Your task to perform on an android device: turn off picture-in-picture Image 0: 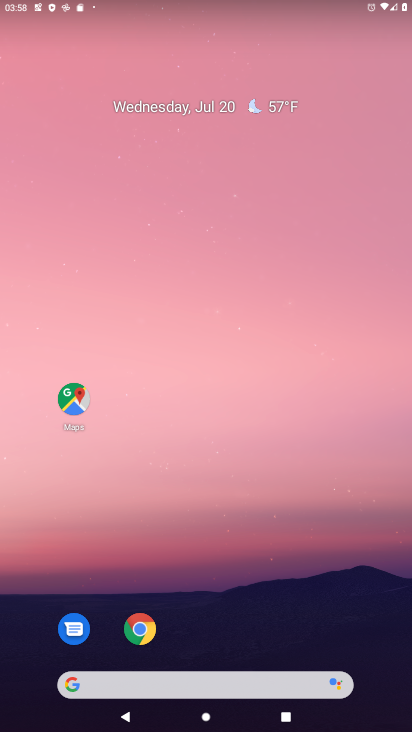
Step 0: drag from (394, 671) to (325, 89)
Your task to perform on an android device: turn off picture-in-picture Image 1: 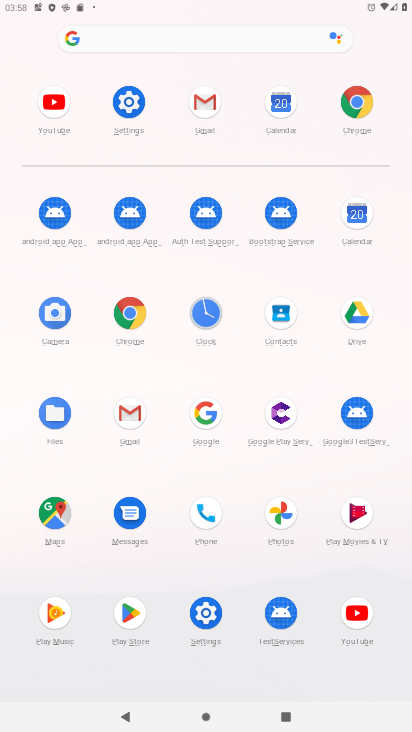
Step 1: click (206, 612)
Your task to perform on an android device: turn off picture-in-picture Image 2: 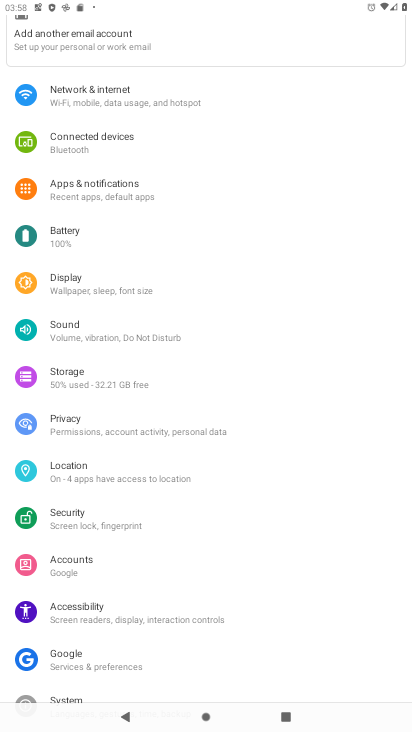
Step 2: click (96, 191)
Your task to perform on an android device: turn off picture-in-picture Image 3: 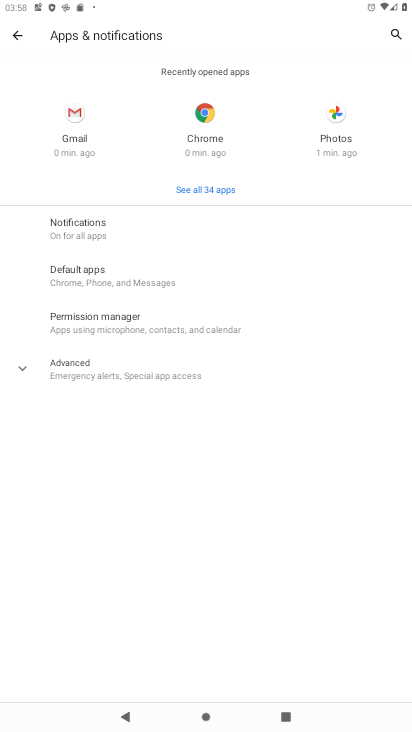
Step 3: click (19, 362)
Your task to perform on an android device: turn off picture-in-picture Image 4: 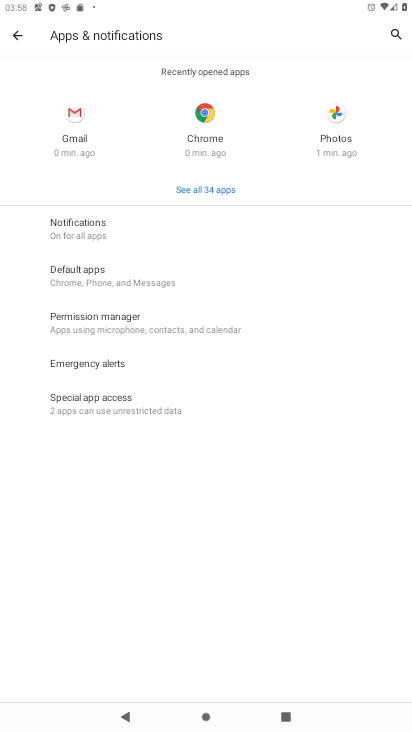
Step 4: click (81, 401)
Your task to perform on an android device: turn off picture-in-picture Image 5: 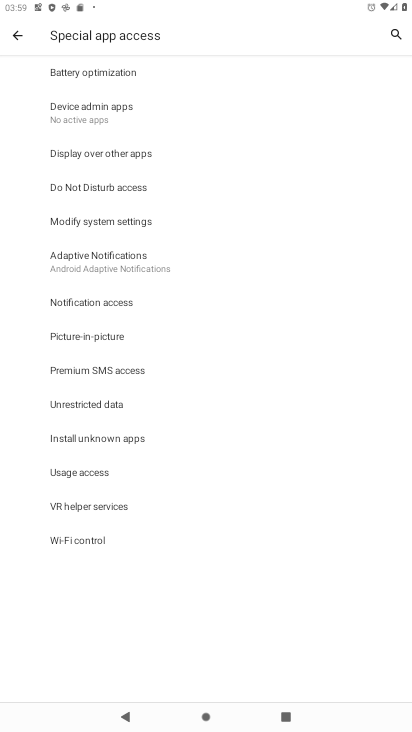
Step 5: click (78, 337)
Your task to perform on an android device: turn off picture-in-picture Image 6: 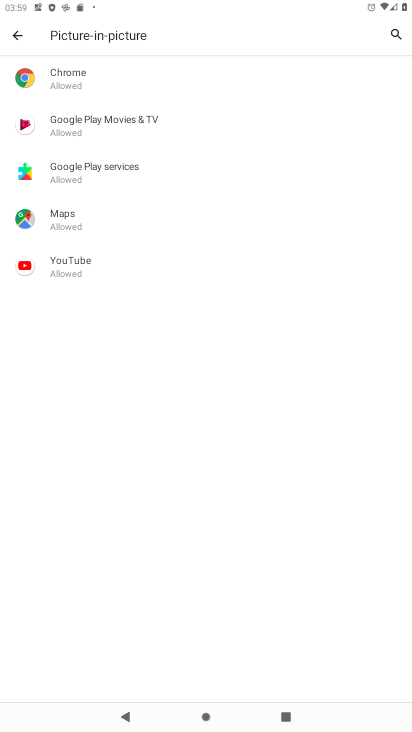
Step 6: click (66, 273)
Your task to perform on an android device: turn off picture-in-picture Image 7: 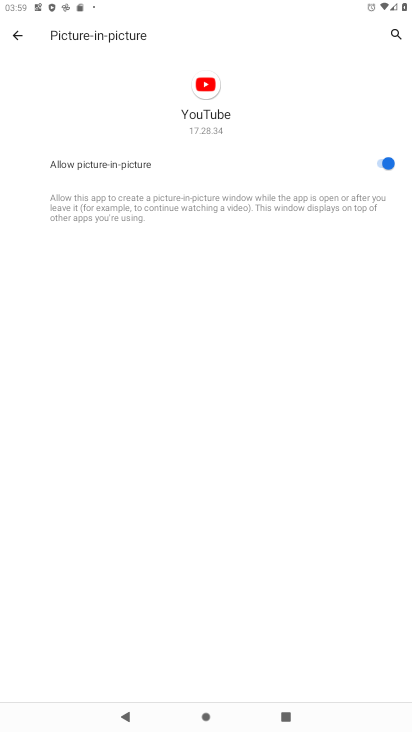
Step 7: click (375, 160)
Your task to perform on an android device: turn off picture-in-picture Image 8: 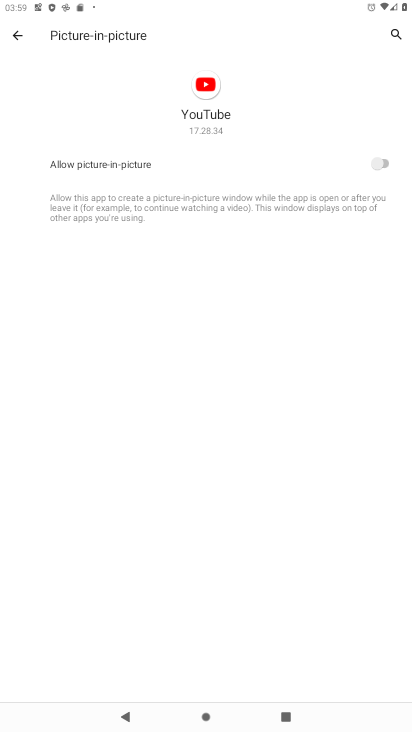
Step 8: task complete